Your task to perform on an android device: add a contact in the contacts app Image 0: 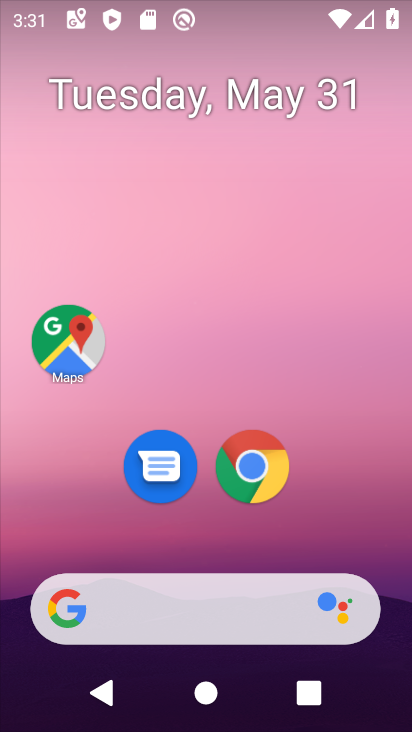
Step 0: drag from (217, 557) to (236, 65)
Your task to perform on an android device: add a contact in the contacts app Image 1: 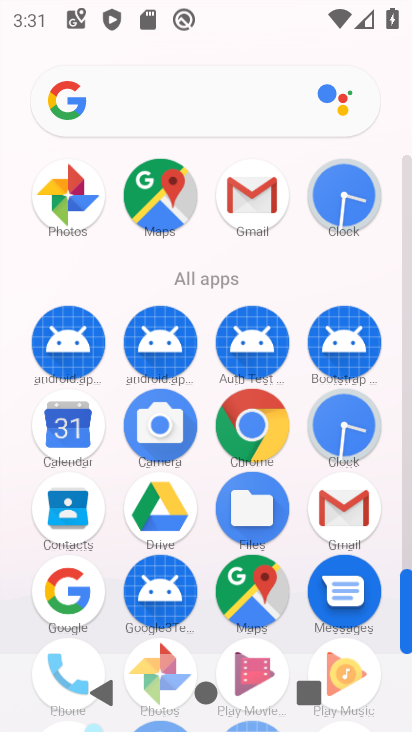
Step 1: click (65, 506)
Your task to perform on an android device: add a contact in the contacts app Image 2: 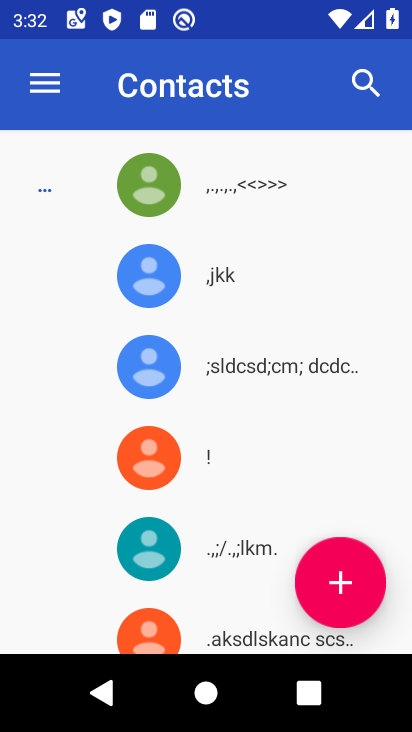
Step 2: click (338, 583)
Your task to perform on an android device: add a contact in the contacts app Image 3: 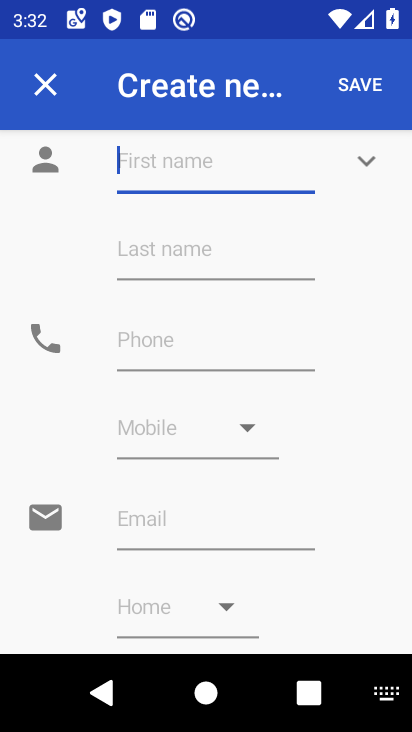
Step 3: click (133, 170)
Your task to perform on an android device: add a contact in the contacts app Image 4: 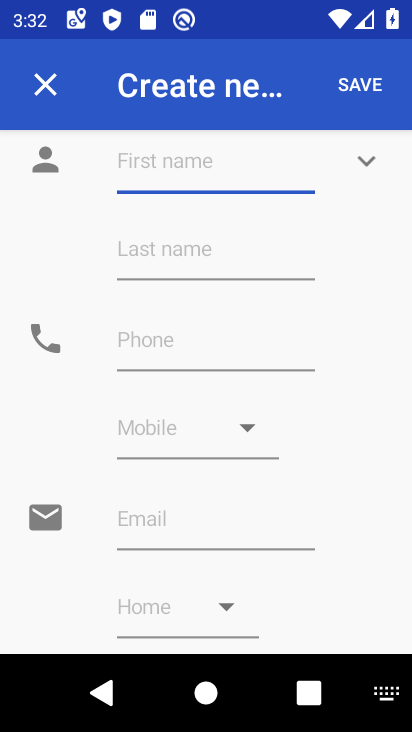
Step 4: type "hghvg"
Your task to perform on an android device: add a contact in the contacts app Image 5: 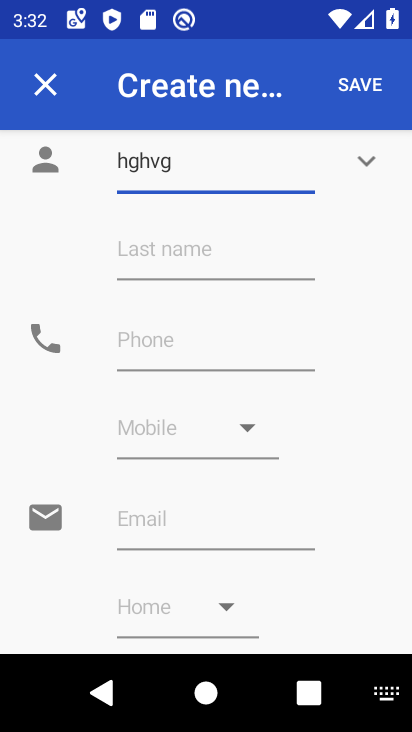
Step 5: click (142, 355)
Your task to perform on an android device: add a contact in the contacts app Image 6: 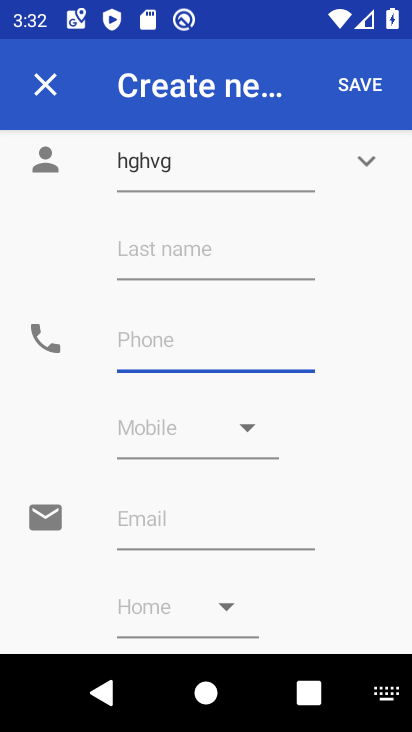
Step 6: type "8787"
Your task to perform on an android device: add a contact in the contacts app Image 7: 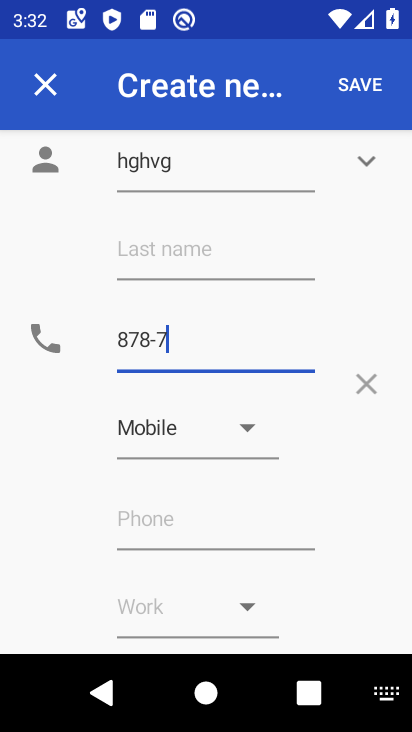
Step 7: click (360, 79)
Your task to perform on an android device: add a contact in the contacts app Image 8: 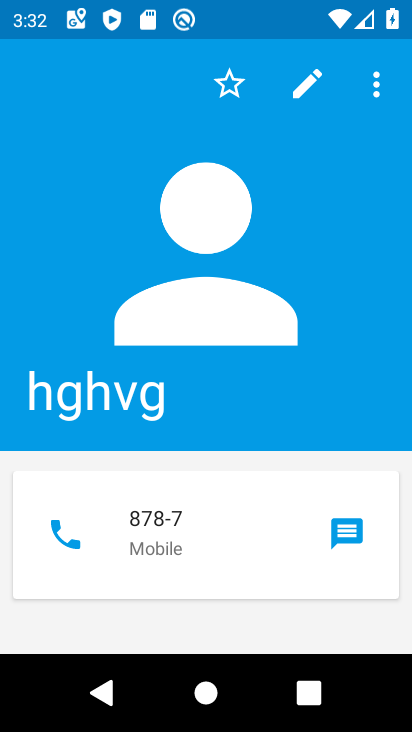
Step 8: task complete